Your task to perform on an android device: check android version Image 0: 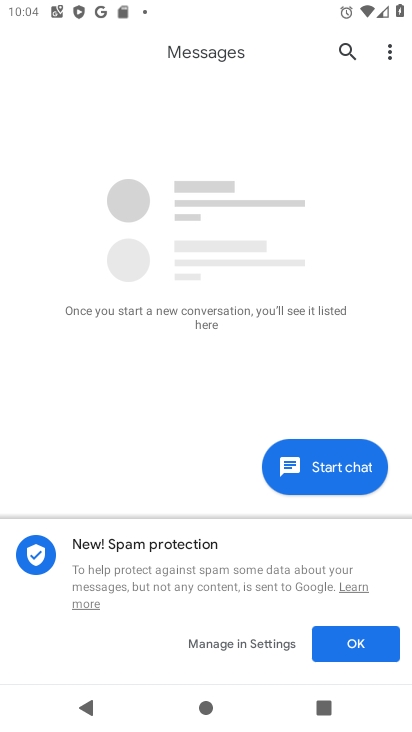
Step 0: press home button
Your task to perform on an android device: check android version Image 1: 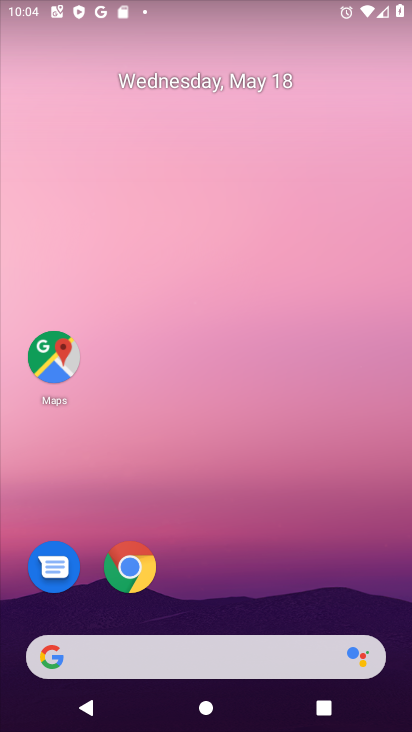
Step 1: drag from (204, 650) to (140, 78)
Your task to perform on an android device: check android version Image 2: 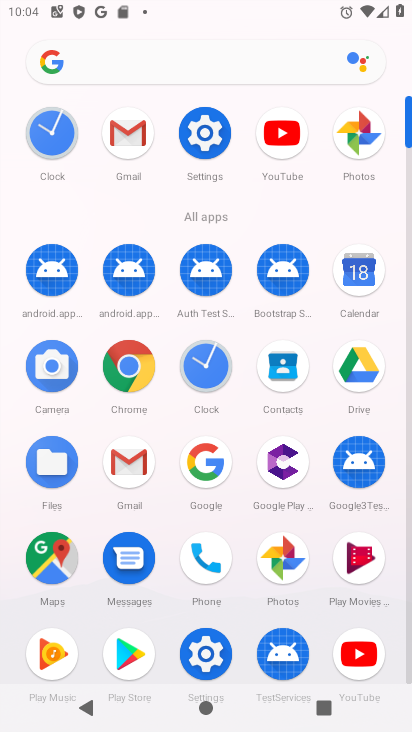
Step 2: click (193, 141)
Your task to perform on an android device: check android version Image 3: 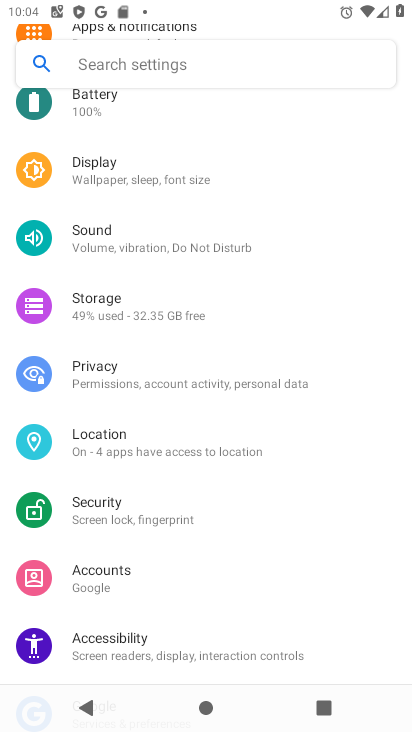
Step 3: click (114, 653)
Your task to perform on an android device: check android version Image 4: 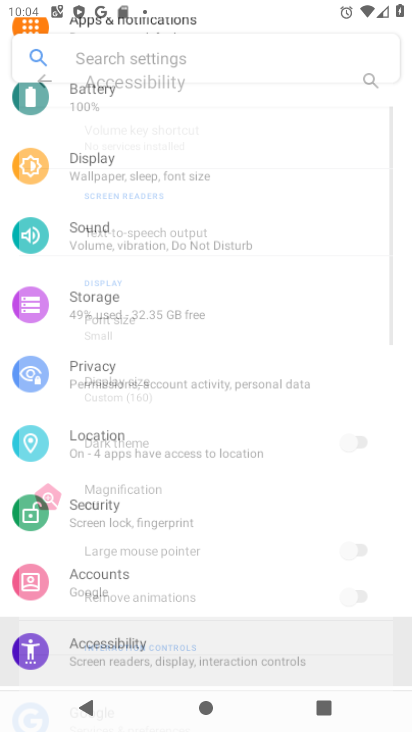
Step 4: drag from (117, 644) to (7, 146)
Your task to perform on an android device: check android version Image 5: 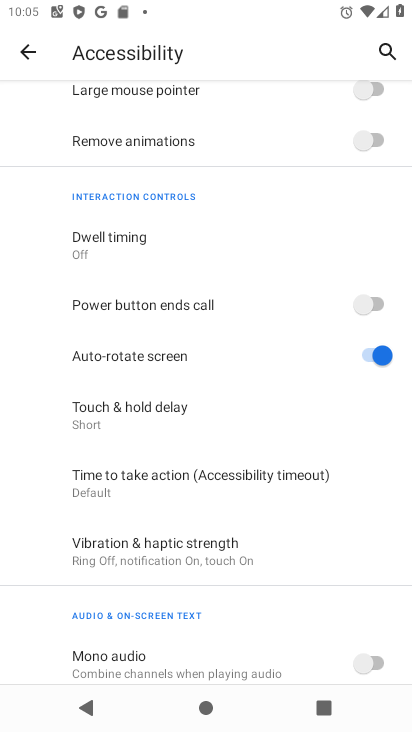
Step 5: click (20, 44)
Your task to perform on an android device: check android version Image 6: 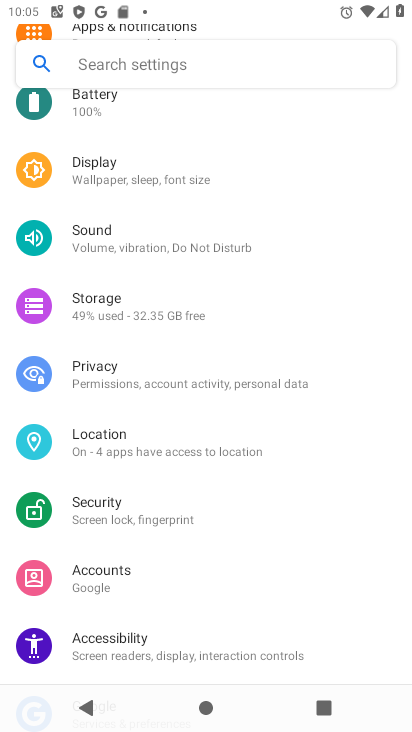
Step 6: drag from (124, 646) to (129, 48)
Your task to perform on an android device: check android version Image 7: 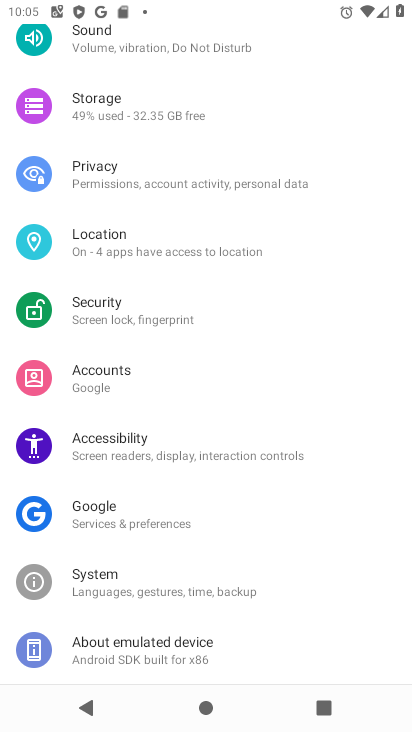
Step 7: click (158, 656)
Your task to perform on an android device: check android version Image 8: 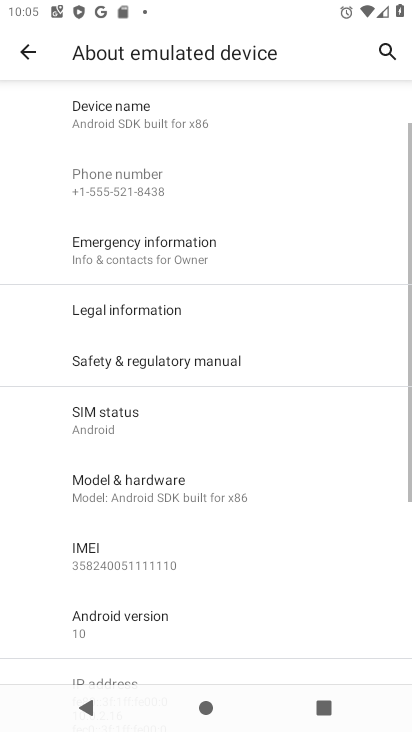
Step 8: drag from (195, 583) to (164, 260)
Your task to perform on an android device: check android version Image 9: 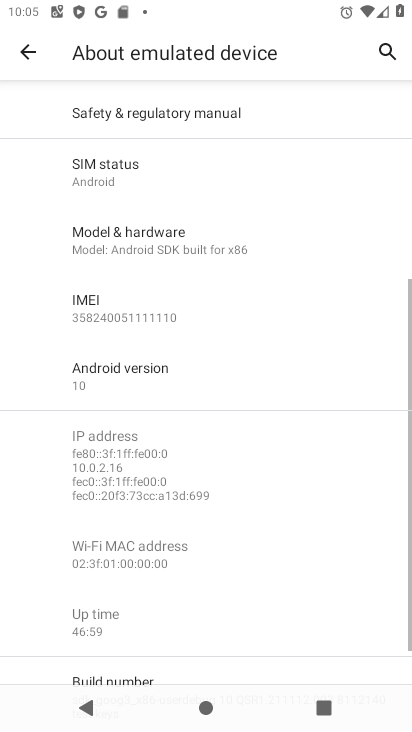
Step 9: click (121, 379)
Your task to perform on an android device: check android version Image 10: 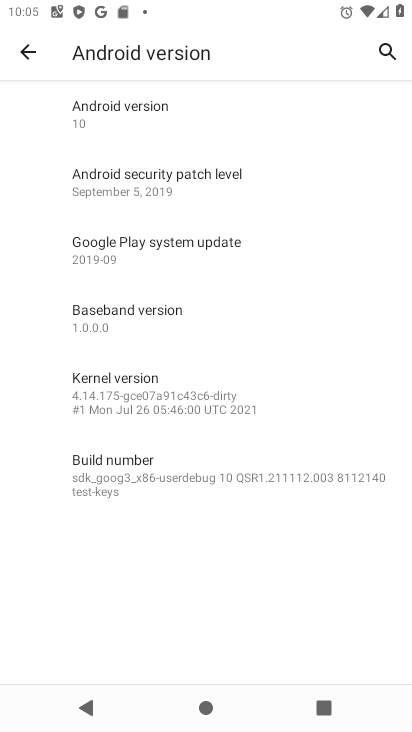
Step 10: task complete